Your task to perform on an android device: Show the shopping cart on bestbuy. Add "beats solo 3" to the cart on bestbuy Image 0: 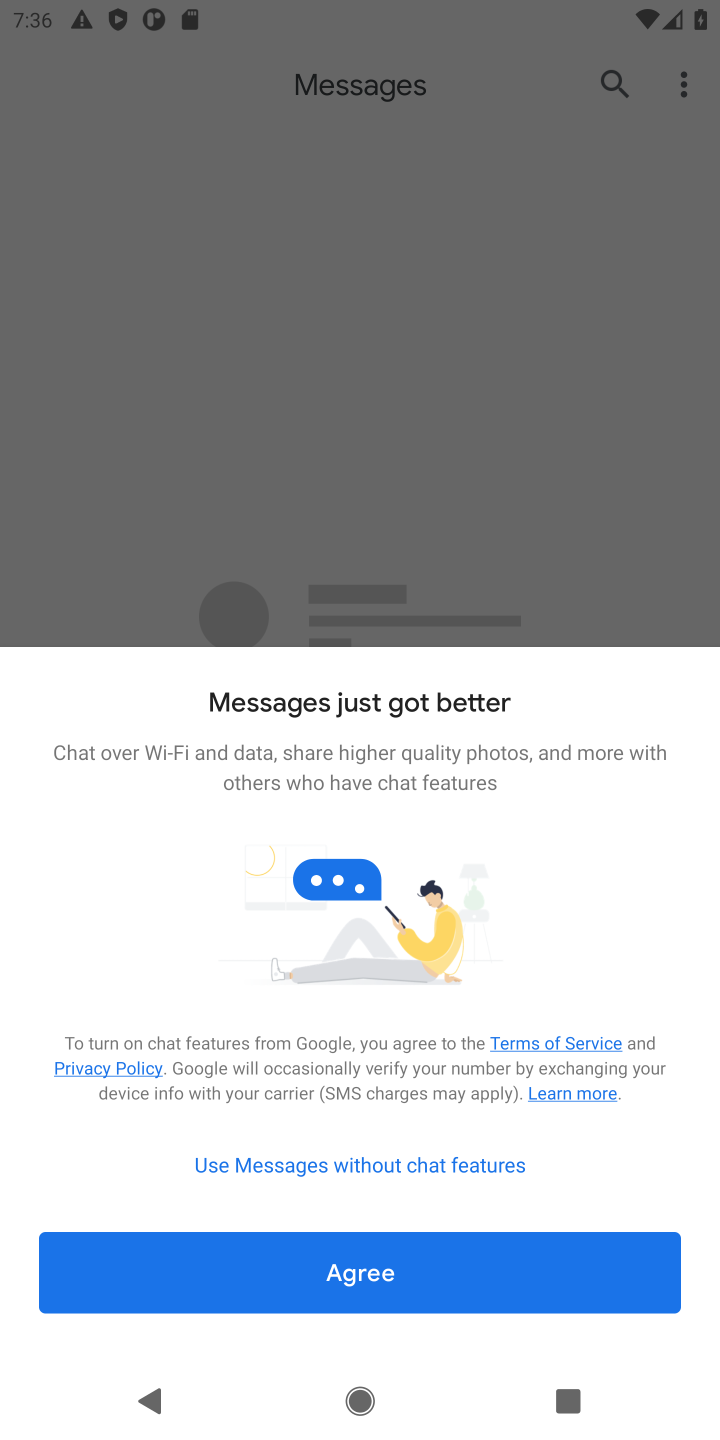
Step 0: press home button
Your task to perform on an android device: Show the shopping cart on bestbuy. Add "beats solo 3" to the cart on bestbuy Image 1: 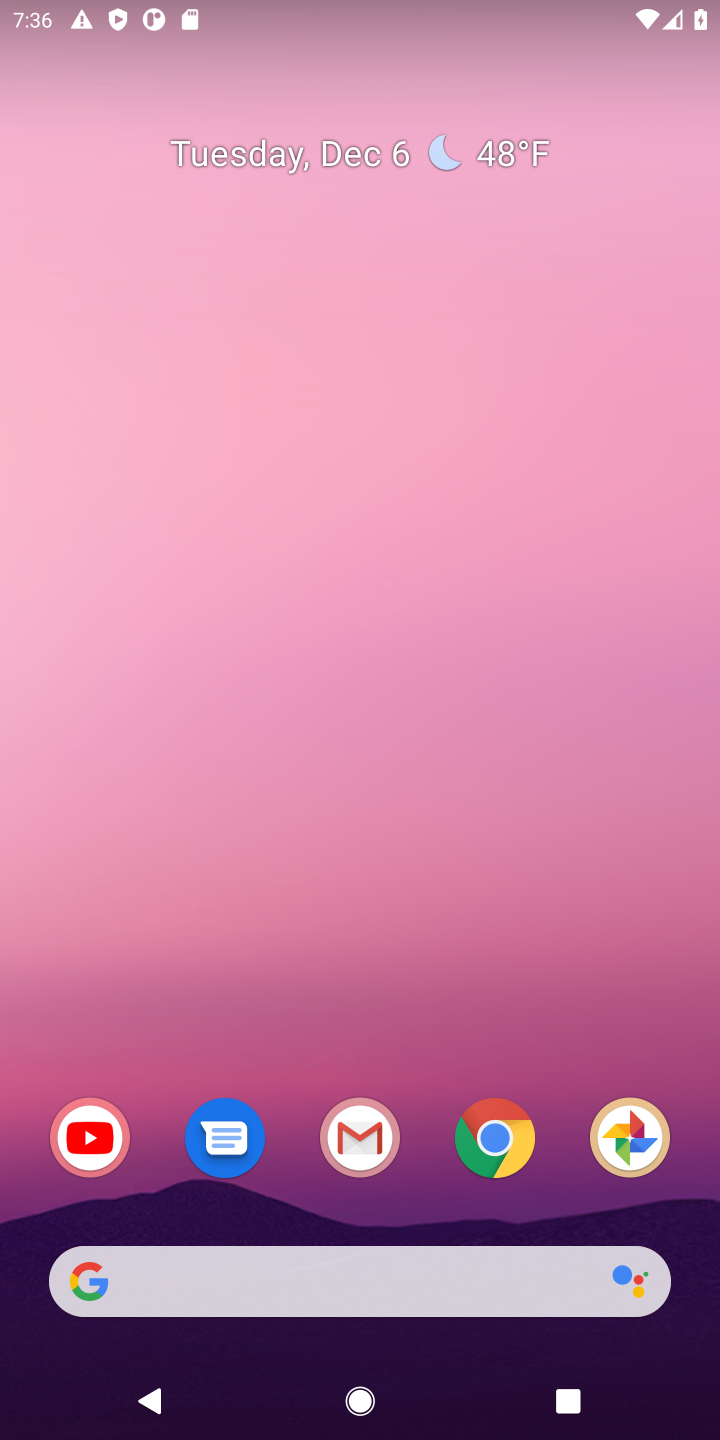
Step 1: click (499, 1145)
Your task to perform on an android device: Show the shopping cart on bestbuy. Add "beats solo 3" to the cart on bestbuy Image 2: 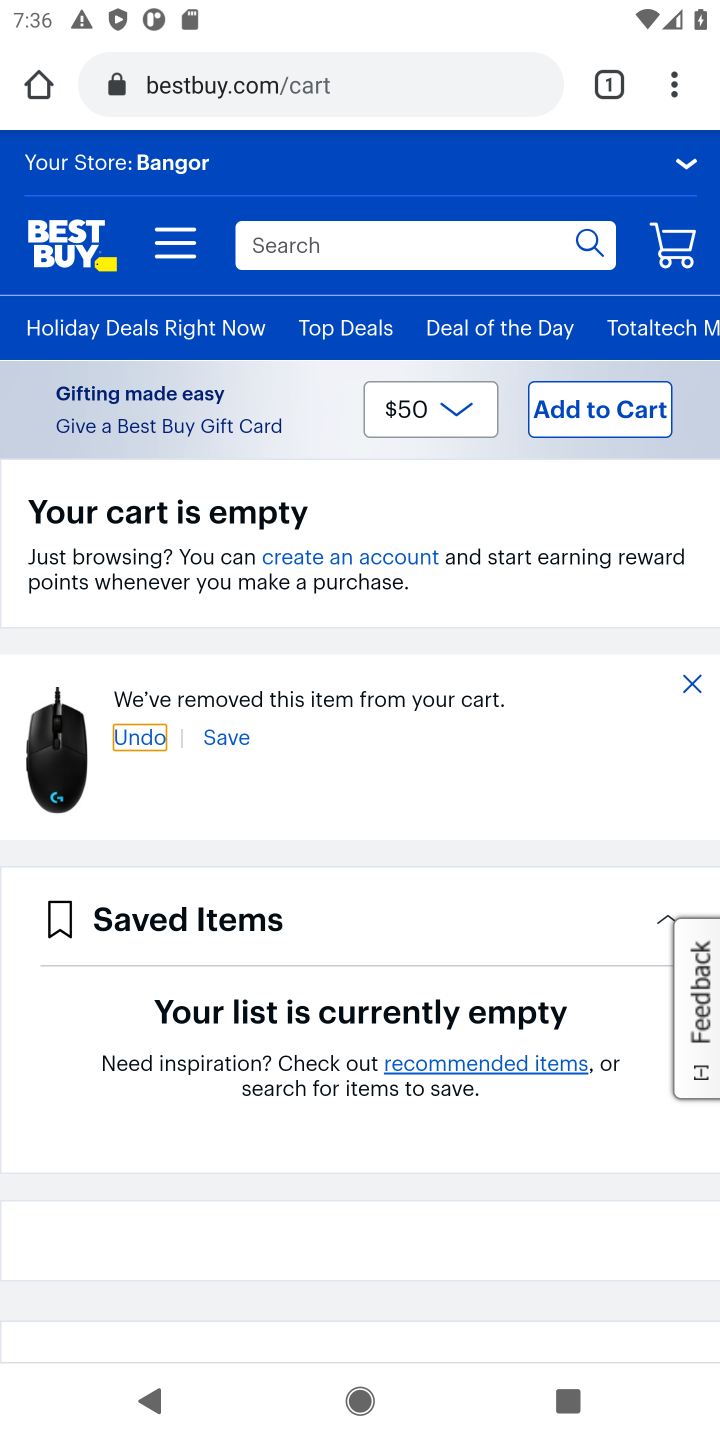
Step 2: click (676, 239)
Your task to perform on an android device: Show the shopping cart on bestbuy. Add "beats solo 3" to the cart on bestbuy Image 3: 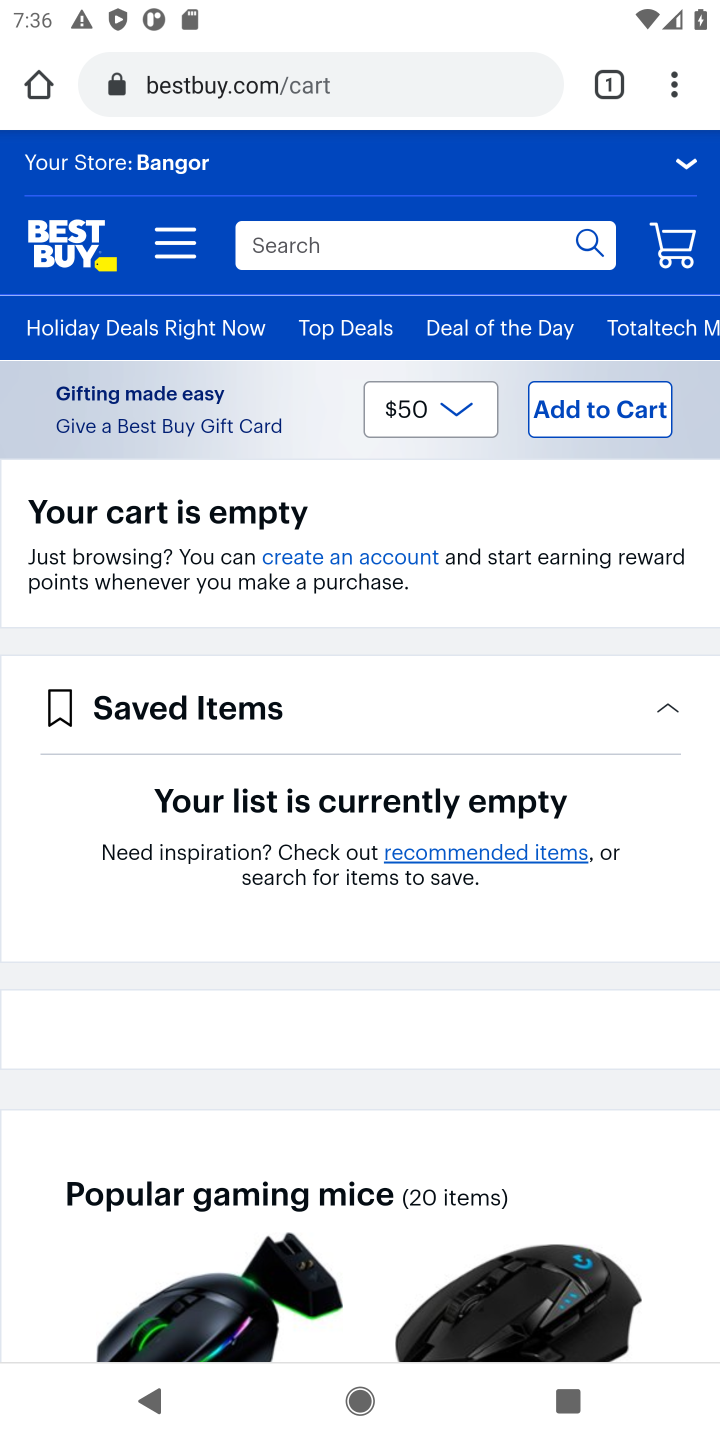
Step 3: click (319, 266)
Your task to perform on an android device: Show the shopping cart on bestbuy. Add "beats solo 3" to the cart on bestbuy Image 4: 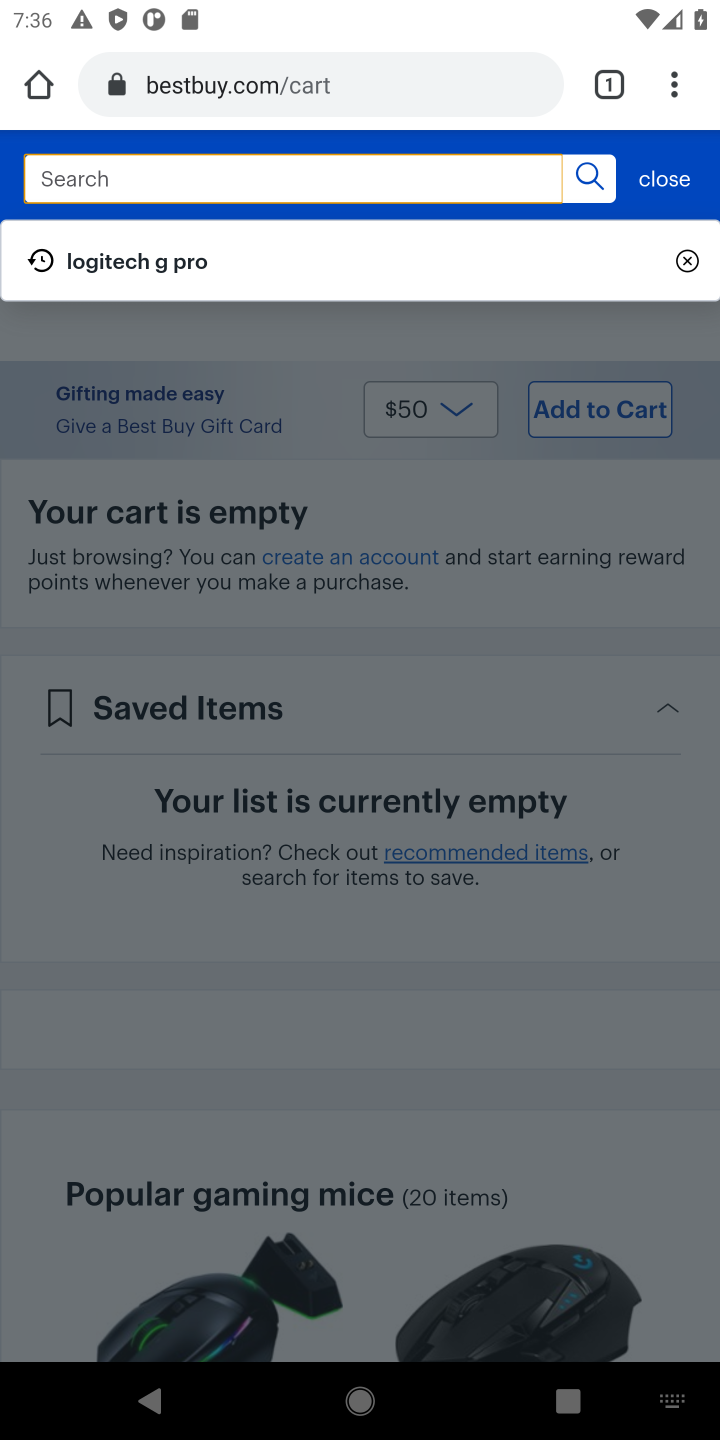
Step 4: type "beats solo 3"
Your task to perform on an android device: Show the shopping cart on bestbuy. Add "beats solo 3" to the cart on bestbuy Image 5: 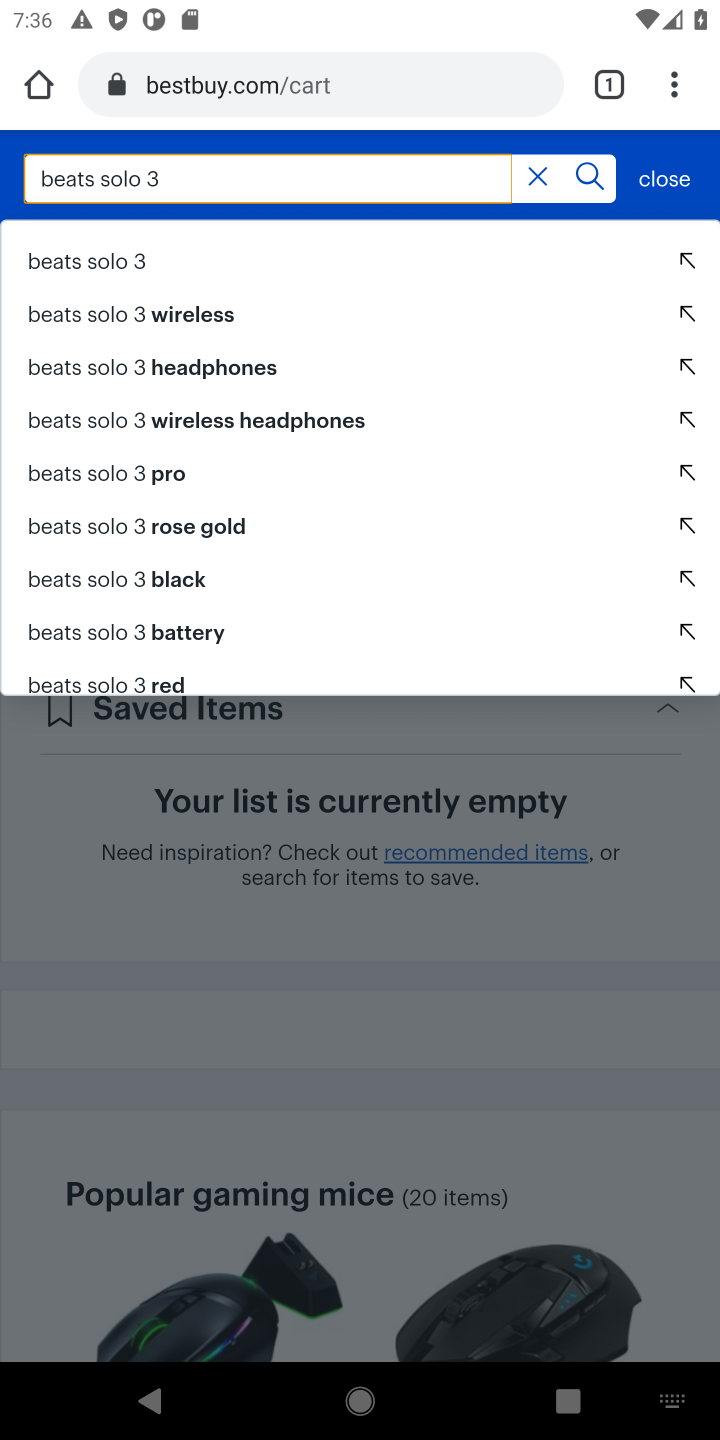
Step 5: click (80, 272)
Your task to perform on an android device: Show the shopping cart on bestbuy. Add "beats solo 3" to the cart on bestbuy Image 6: 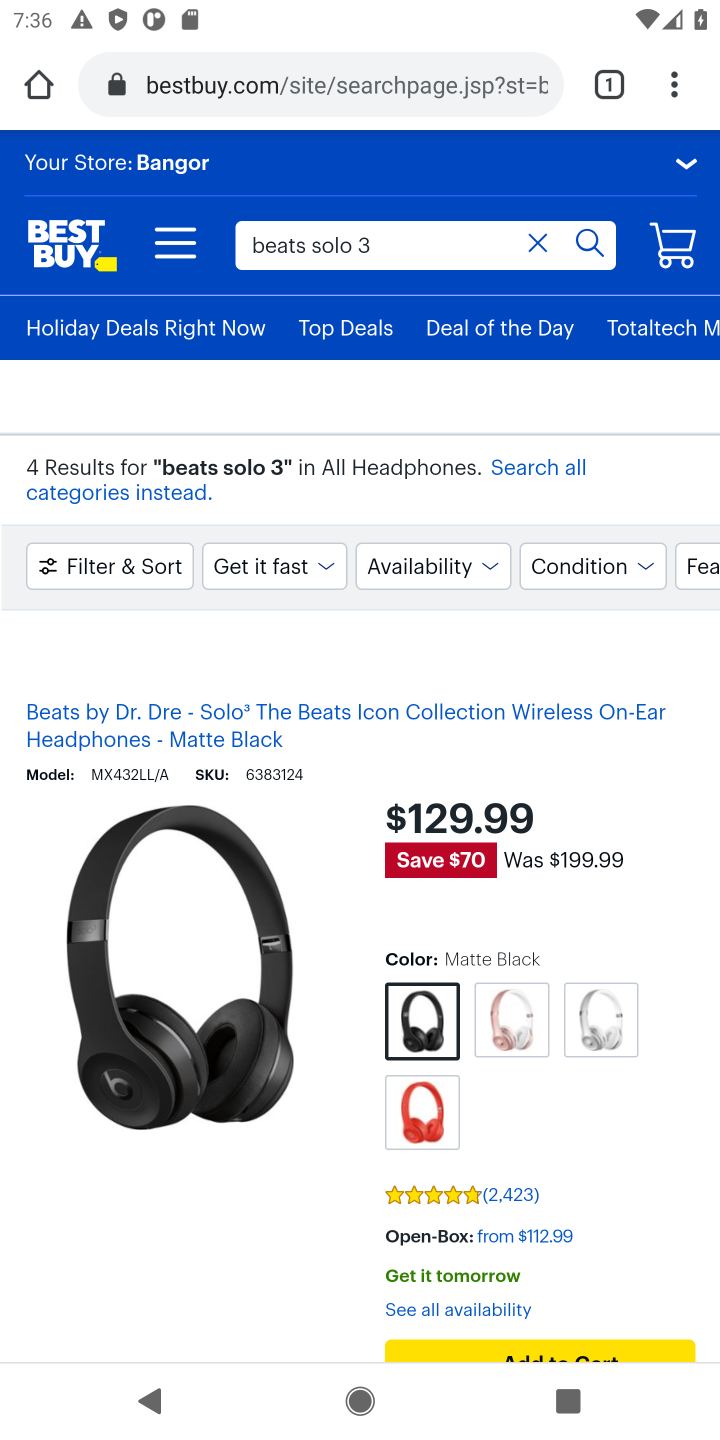
Step 6: click (547, 1307)
Your task to perform on an android device: Show the shopping cart on bestbuy. Add "beats solo 3" to the cart on bestbuy Image 7: 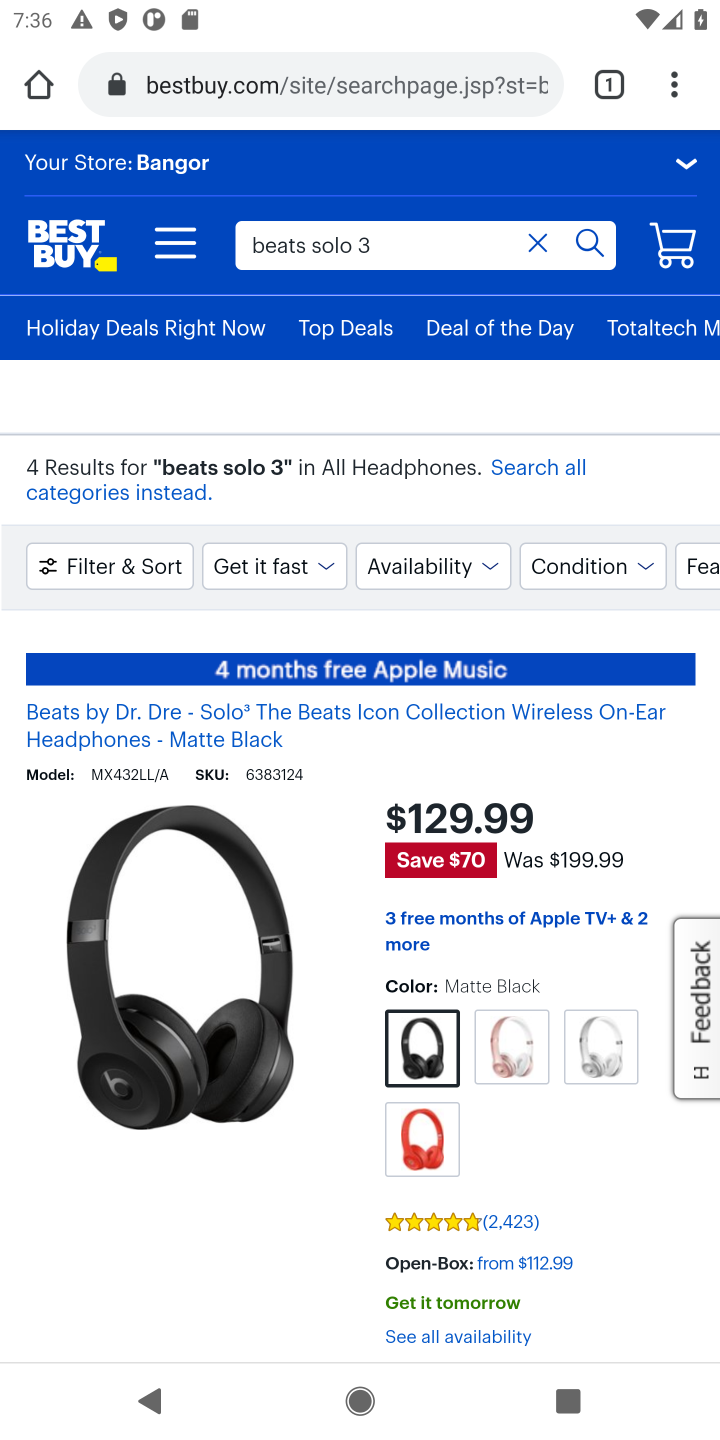
Step 7: drag from (341, 922) to (266, 403)
Your task to perform on an android device: Show the shopping cart on bestbuy. Add "beats solo 3" to the cart on bestbuy Image 8: 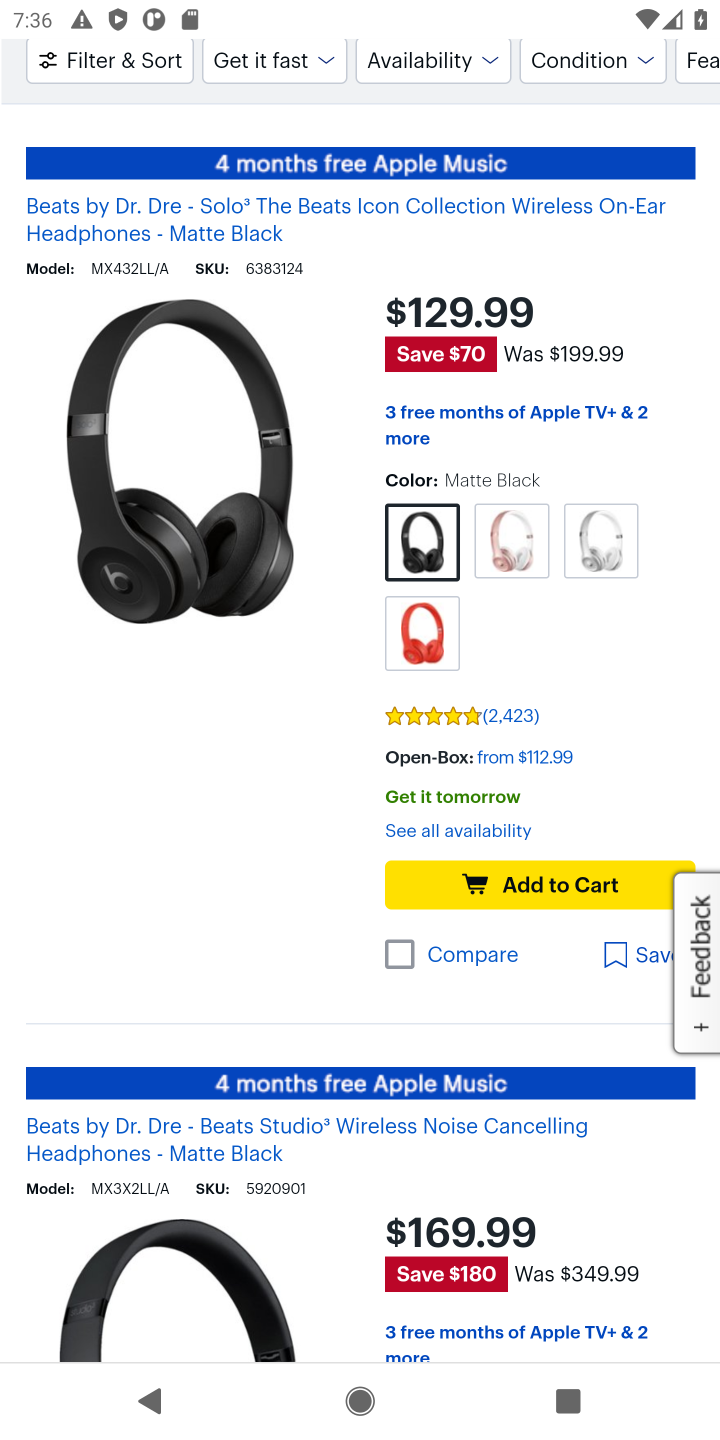
Step 8: click (463, 888)
Your task to perform on an android device: Show the shopping cart on bestbuy. Add "beats solo 3" to the cart on bestbuy Image 9: 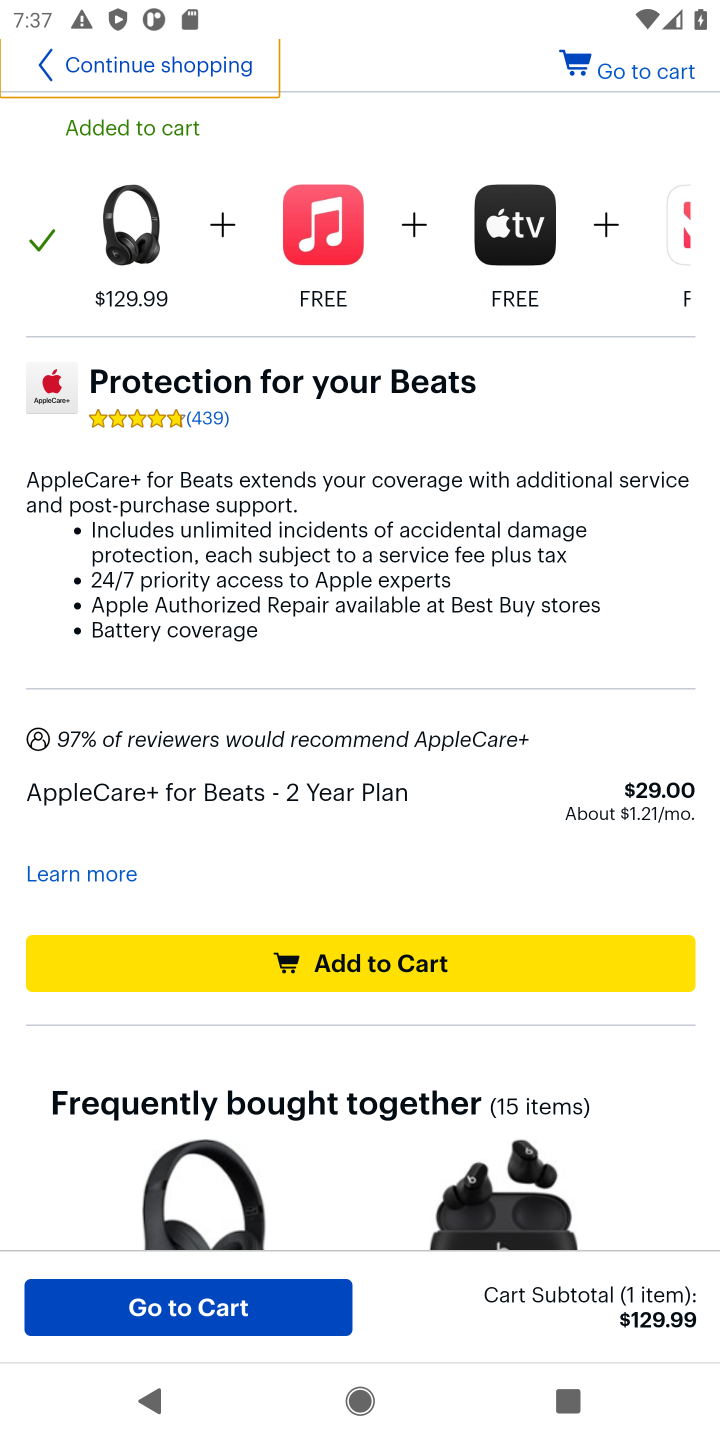
Step 9: task complete